Your task to perform on an android device: Open Amazon Image 0: 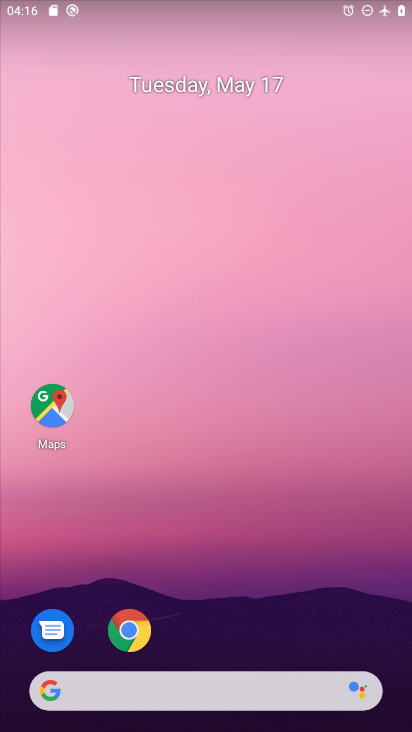
Step 0: click (122, 632)
Your task to perform on an android device: Open Amazon Image 1: 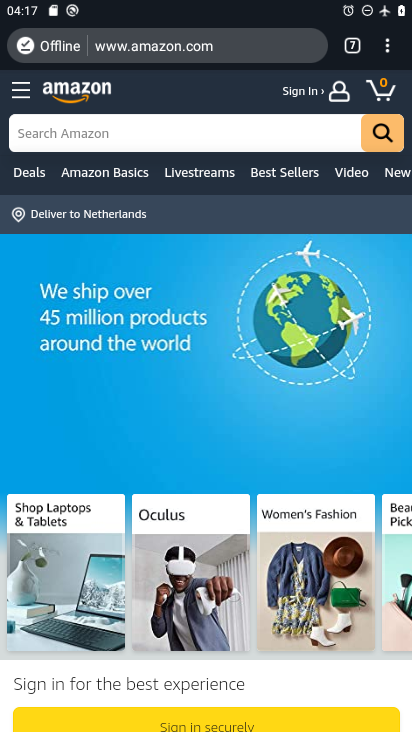
Step 1: task complete